Your task to perform on an android device: Go to network settings Image 0: 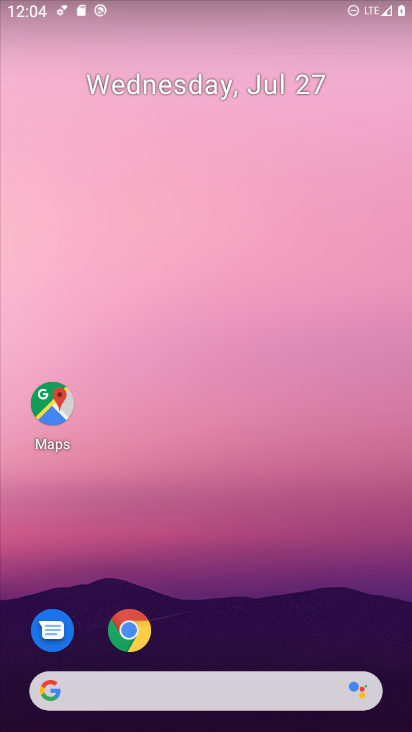
Step 0: drag from (377, 642) to (317, 110)
Your task to perform on an android device: Go to network settings Image 1: 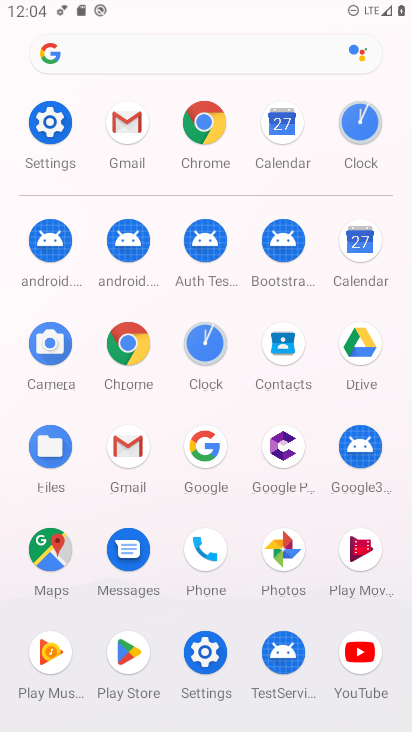
Step 1: click (204, 655)
Your task to perform on an android device: Go to network settings Image 2: 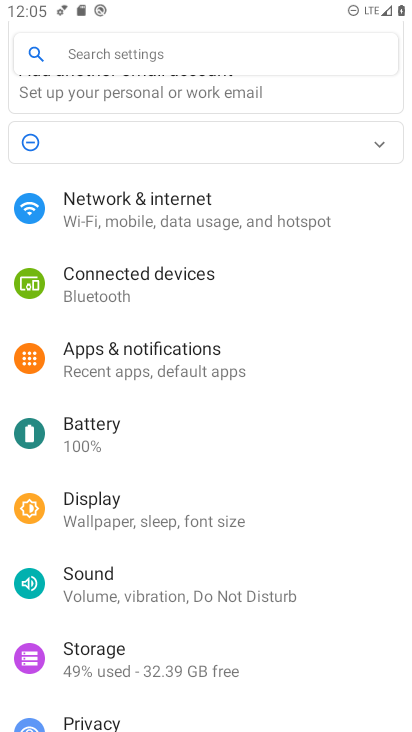
Step 2: click (118, 202)
Your task to perform on an android device: Go to network settings Image 3: 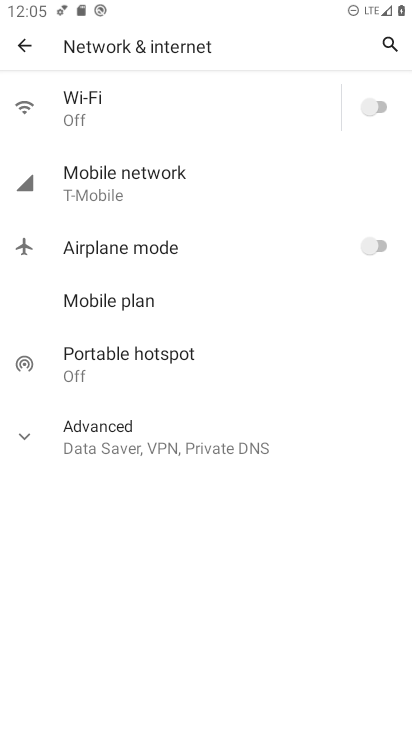
Step 3: click (103, 164)
Your task to perform on an android device: Go to network settings Image 4: 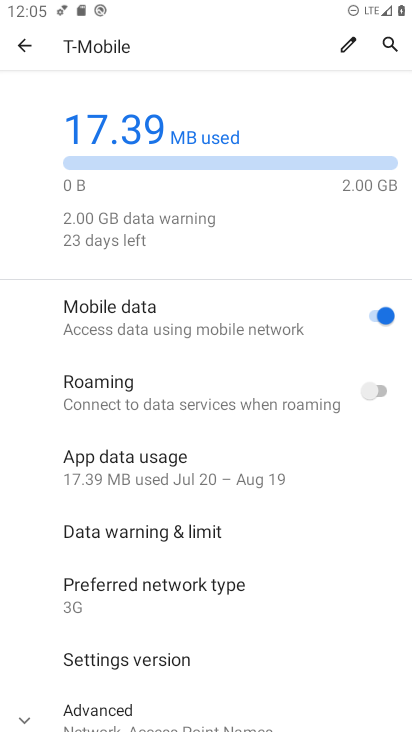
Step 4: drag from (276, 644) to (291, 282)
Your task to perform on an android device: Go to network settings Image 5: 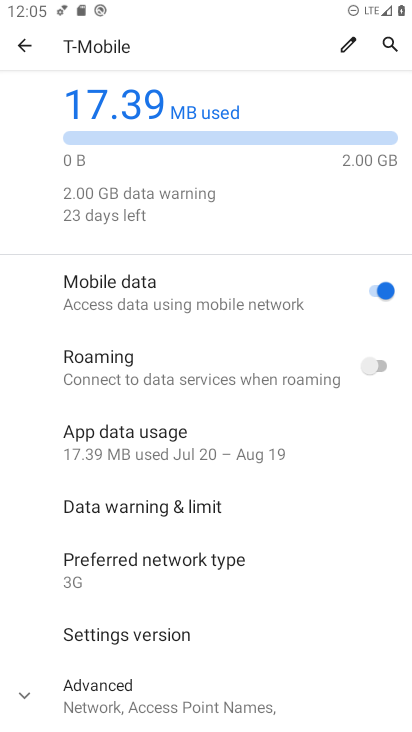
Step 5: click (22, 692)
Your task to perform on an android device: Go to network settings Image 6: 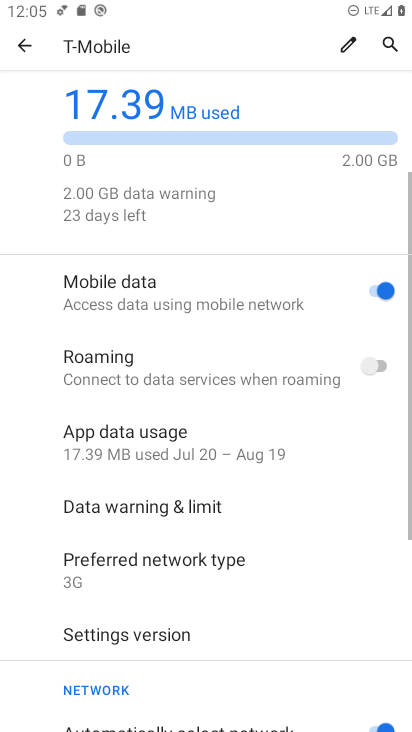
Step 6: task complete